Your task to perform on an android device: Show me productivity apps on the Play Store Image 0: 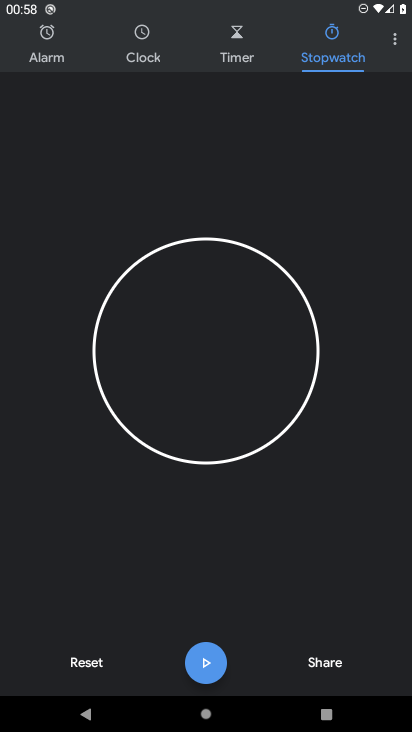
Step 0: press home button
Your task to perform on an android device: Show me productivity apps on the Play Store Image 1: 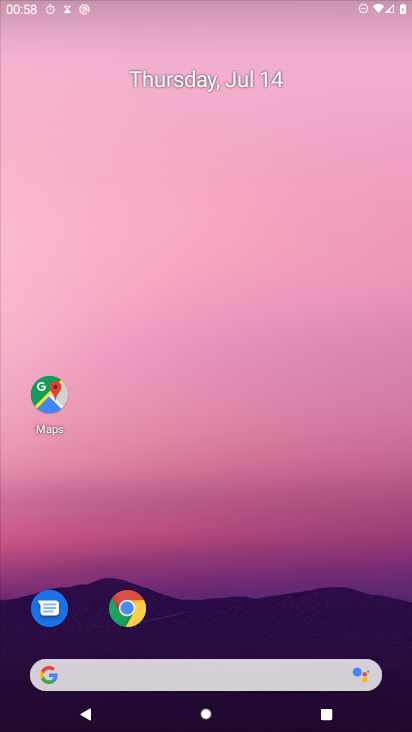
Step 1: drag from (280, 461) to (268, 126)
Your task to perform on an android device: Show me productivity apps on the Play Store Image 2: 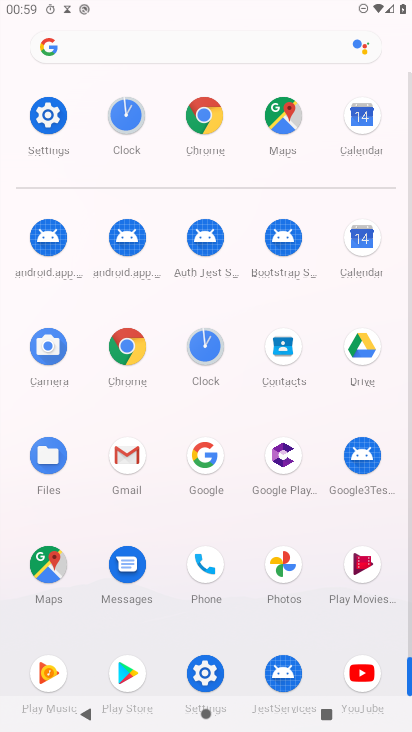
Step 2: click (128, 682)
Your task to perform on an android device: Show me productivity apps on the Play Store Image 3: 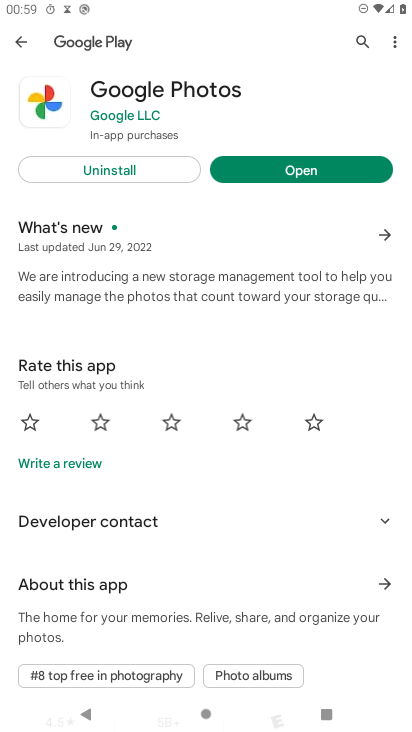
Step 3: click (16, 44)
Your task to perform on an android device: Show me productivity apps on the Play Store Image 4: 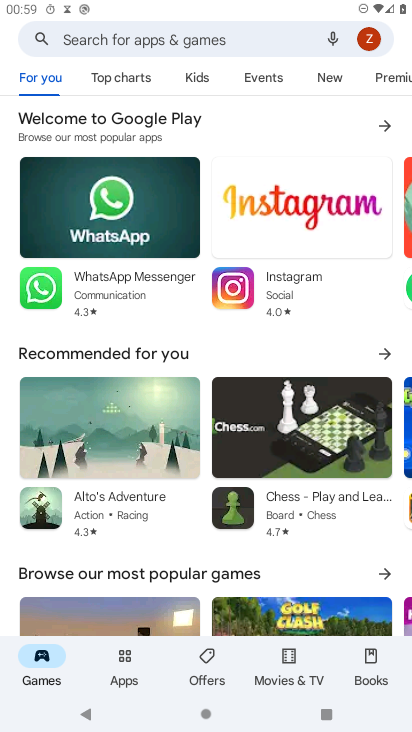
Step 4: click (123, 657)
Your task to perform on an android device: Show me productivity apps on the Play Store Image 5: 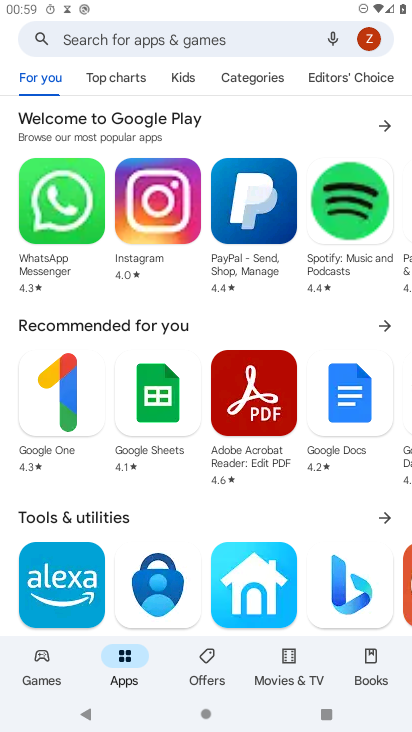
Step 5: drag from (353, 78) to (23, 93)
Your task to perform on an android device: Show me productivity apps on the Play Store Image 6: 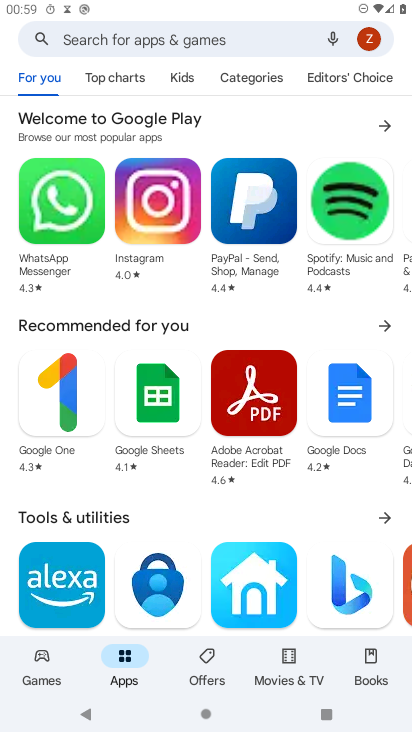
Step 6: click (239, 81)
Your task to perform on an android device: Show me productivity apps on the Play Store Image 7: 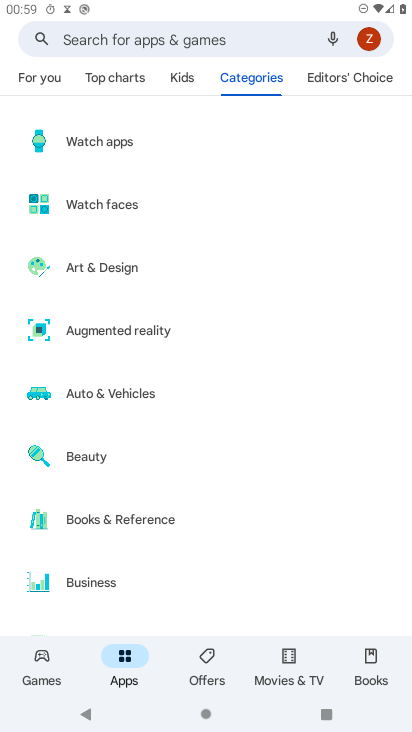
Step 7: drag from (277, 606) to (261, 0)
Your task to perform on an android device: Show me productivity apps on the Play Store Image 8: 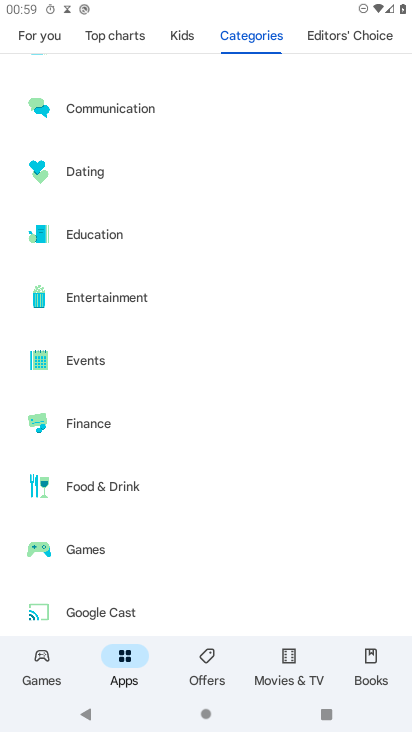
Step 8: drag from (243, 595) to (256, 21)
Your task to perform on an android device: Show me productivity apps on the Play Store Image 9: 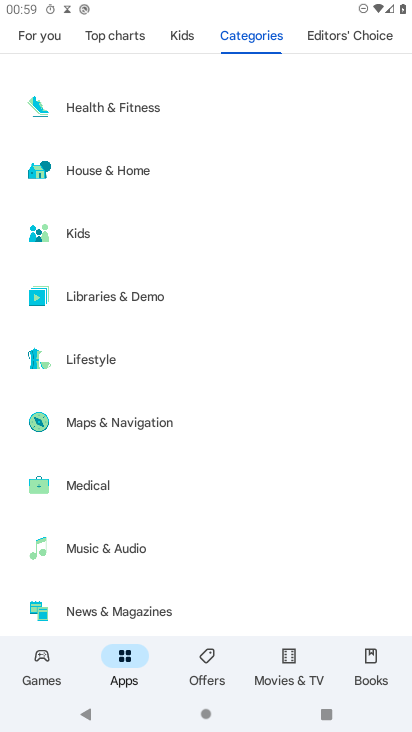
Step 9: drag from (243, 539) to (368, 2)
Your task to perform on an android device: Show me productivity apps on the Play Store Image 10: 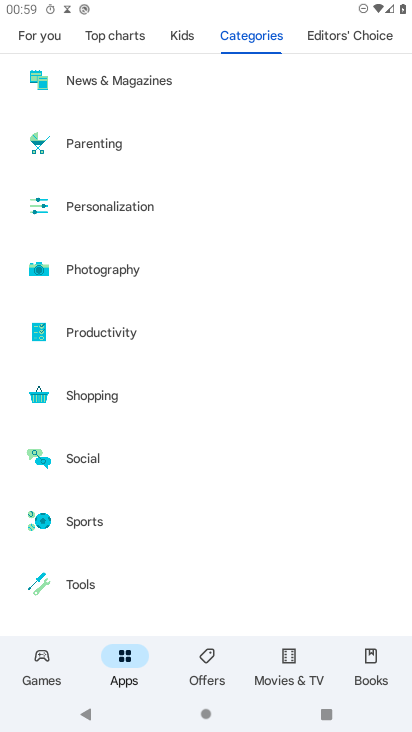
Step 10: drag from (307, 573) to (403, 400)
Your task to perform on an android device: Show me productivity apps on the Play Store Image 11: 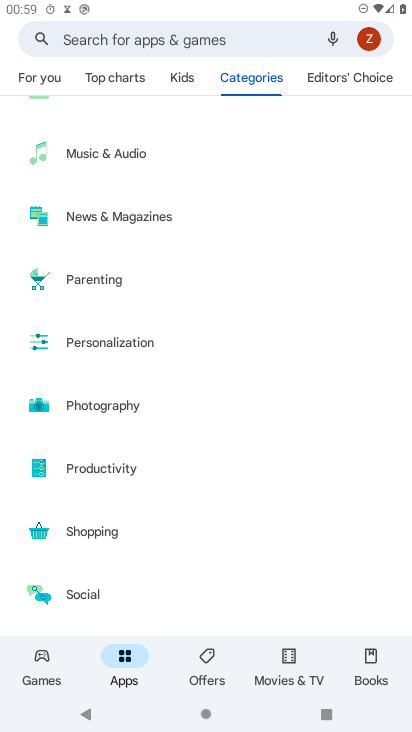
Step 11: drag from (284, 608) to (333, 9)
Your task to perform on an android device: Show me productivity apps on the Play Store Image 12: 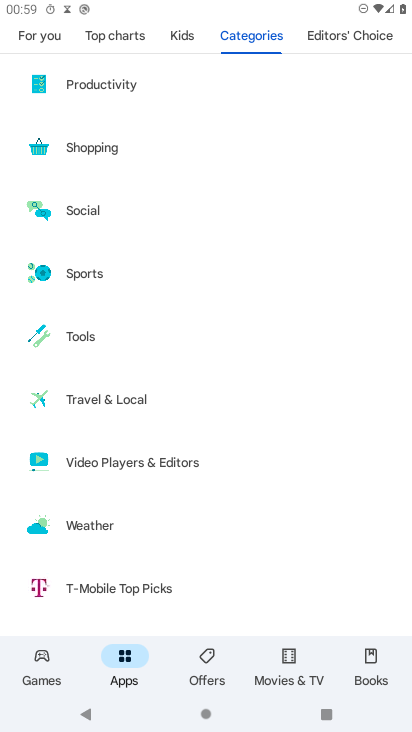
Step 12: click (95, 92)
Your task to perform on an android device: Show me productivity apps on the Play Store Image 13: 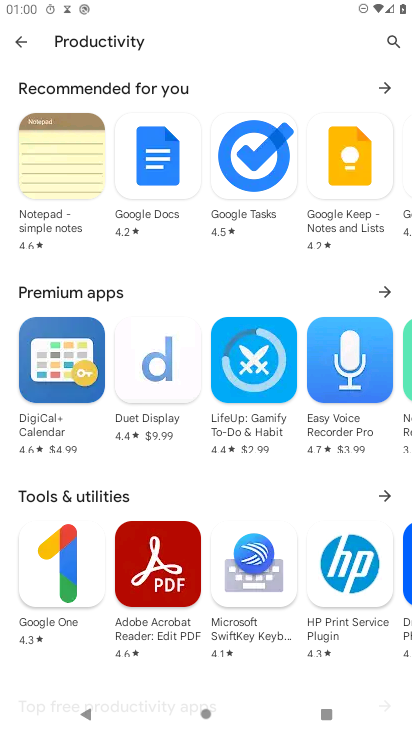
Step 13: task complete